Your task to perform on an android device: make emails show in primary in the gmail app Image 0: 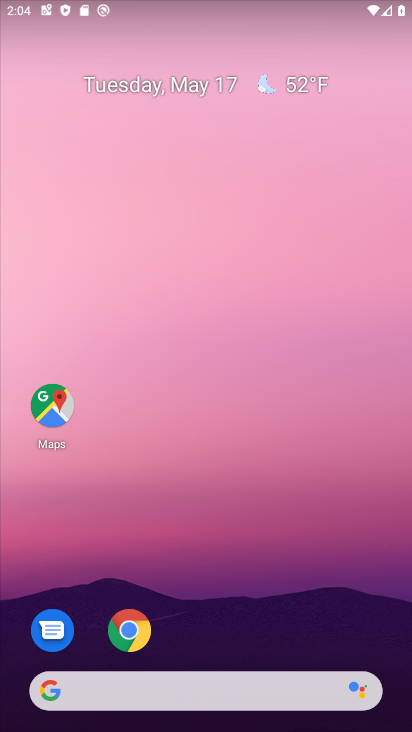
Step 0: drag from (228, 430) to (279, 55)
Your task to perform on an android device: make emails show in primary in the gmail app Image 1: 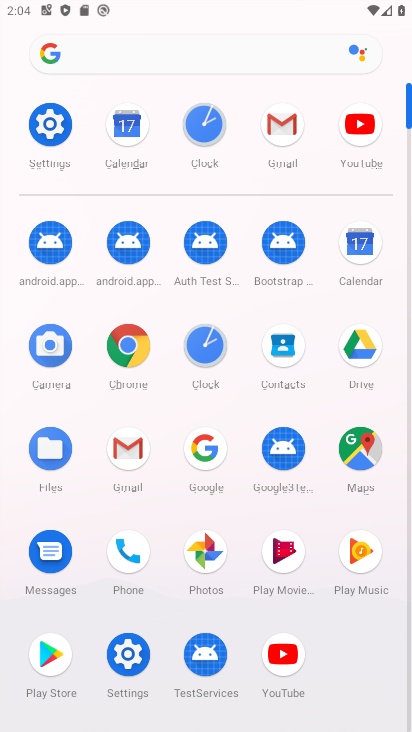
Step 1: click (277, 123)
Your task to perform on an android device: make emails show in primary in the gmail app Image 2: 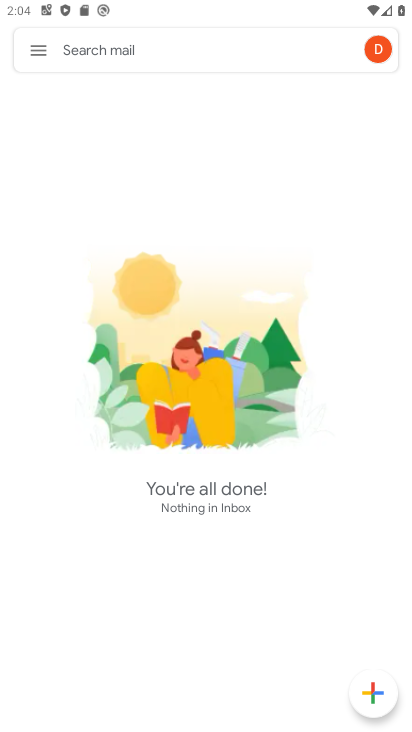
Step 2: click (38, 56)
Your task to perform on an android device: make emails show in primary in the gmail app Image 3: 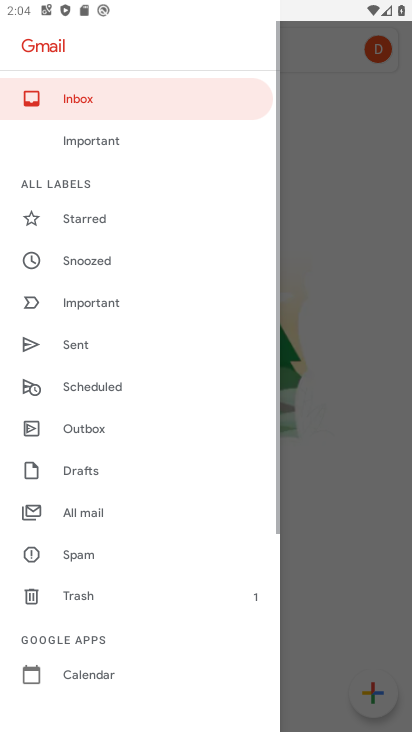
Step 3: drag from (94, 669) to (214, 72)
Your task to perform on an android device: make emails show in primary in the gmail app Image 4: 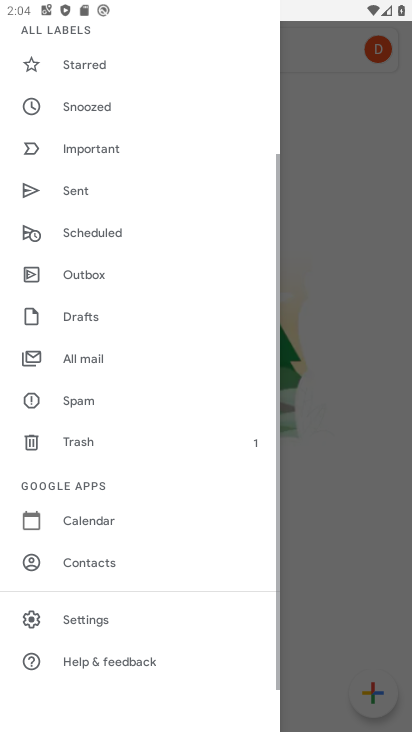
Step 4: click (81, 605)
Your task to perform on an android device: make emails show in primary in the gmail app Image 5: 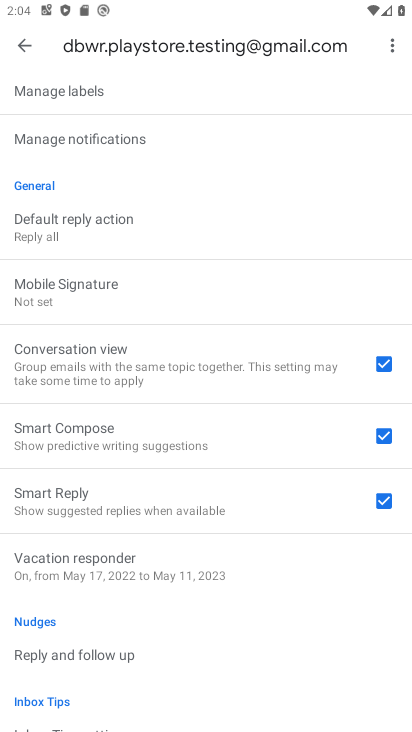
Step 5: task complete